Your task to perform on an android device: toggle priority inbox in the gmail app Image 0: 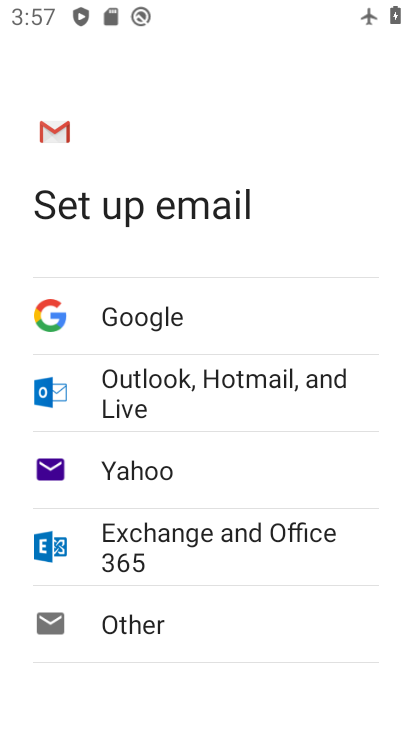
Step 0: drag from (363, 589) to (338, 318)
Your task to perform on an android device: toggle priority inbox in the gmail app Image 1: 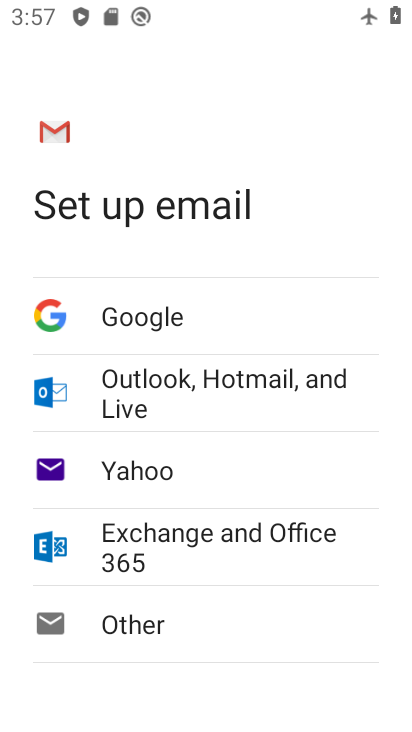
Step 1: press home button
Your task to perform on an android device: toggle priority inbox in the gmail app Image 2: 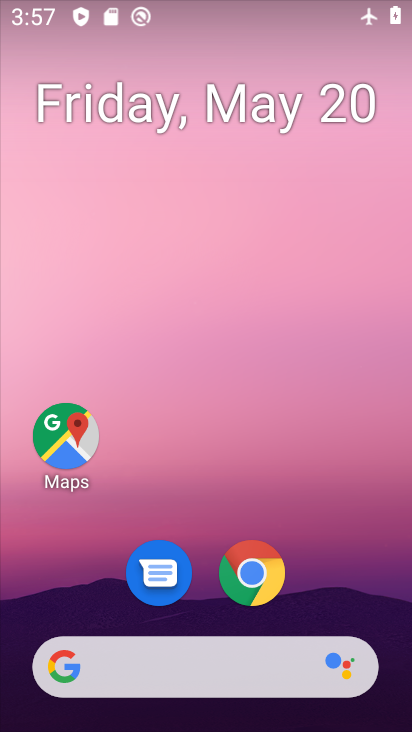
Step 2: drag from (382, 618) to (269, 249)
Your task to perform on an android device: toggle priority inbox in the gmail app Image 3: 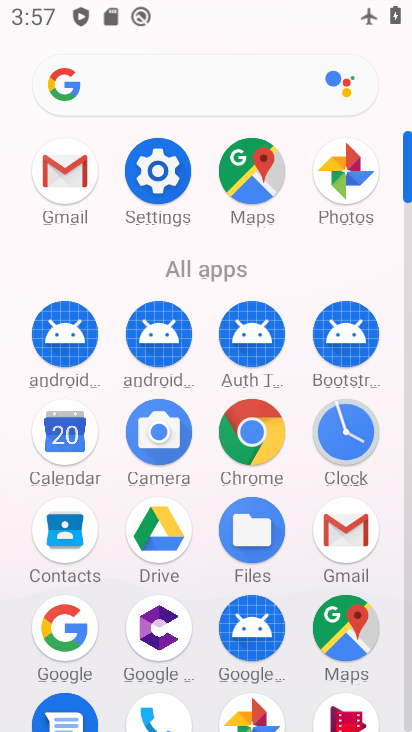
Step 3: click (71, 186)
Your task to perform on an android device: toggle priority inbox in the gmail app Image 4: 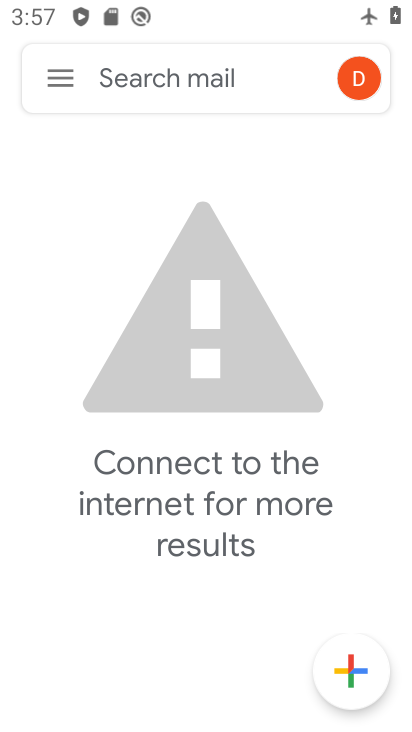
Step 4: click (62, 84)
Your task to perform on an android device: toggle priority inbox in the gmail app Image 5: 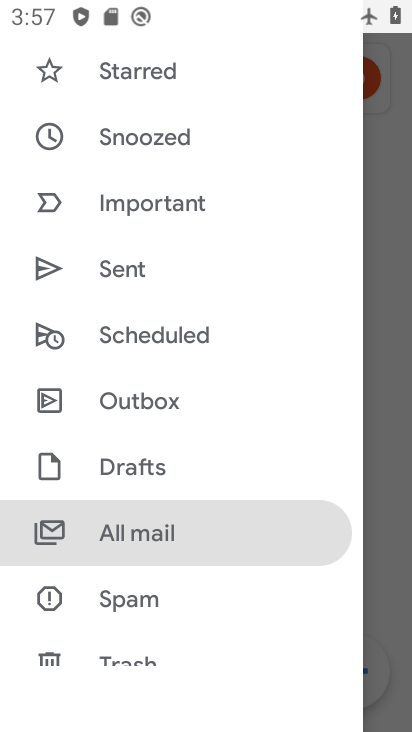
Step 5: drag from (148, 623) to (133, 273)
Your task to perform on an android device: toggle priority inbox in the gmail app Image 6: 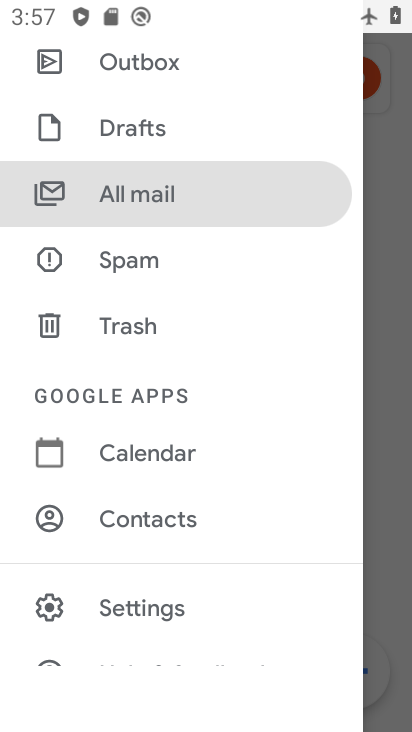
Step 6: click (238, 611)
Your task to perform on an android device: toggle priority inbox in the gmail app Image 7: 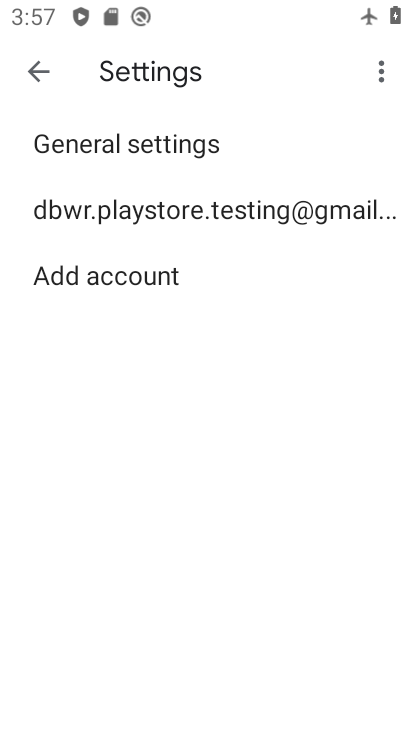
Step 7: click (255, 218)
Your task to perform on an android device: toggle priority inbox in the gmail app Image 8: 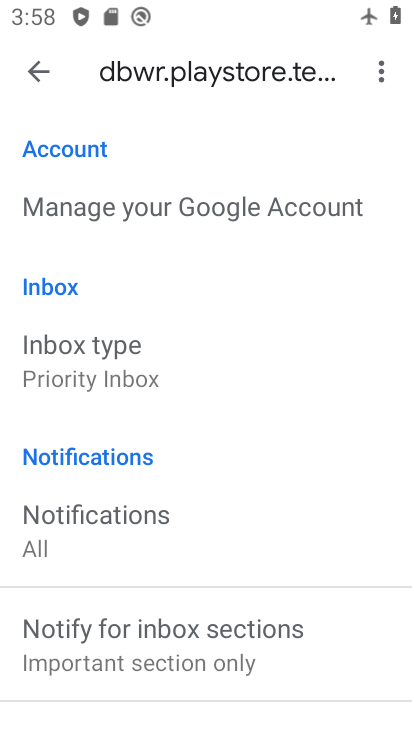
Step 8: click (264, 377)
Your task to perform on an android device: toggle priority inbox in the gmail app Image 9: 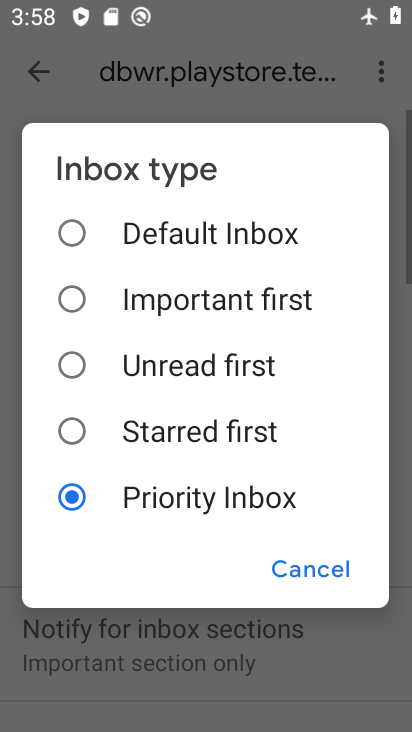
Step 9: click (264, 377)
Your task to perform on an android device: toggle priority inbox in the gmail app Image 10: 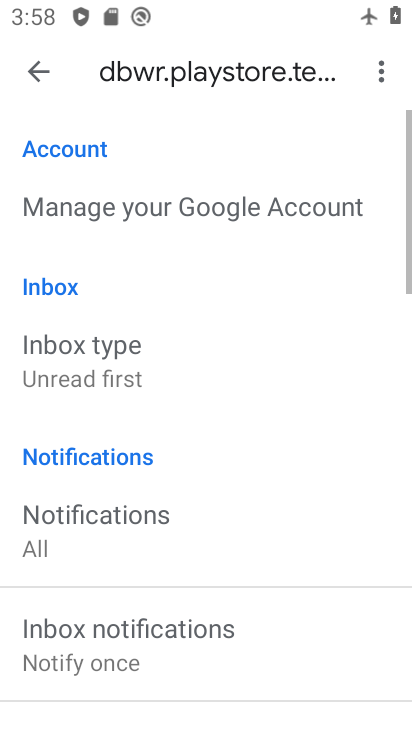
Step 10: task complete